Your task to perform on an android device: Open battery settings Image 0: 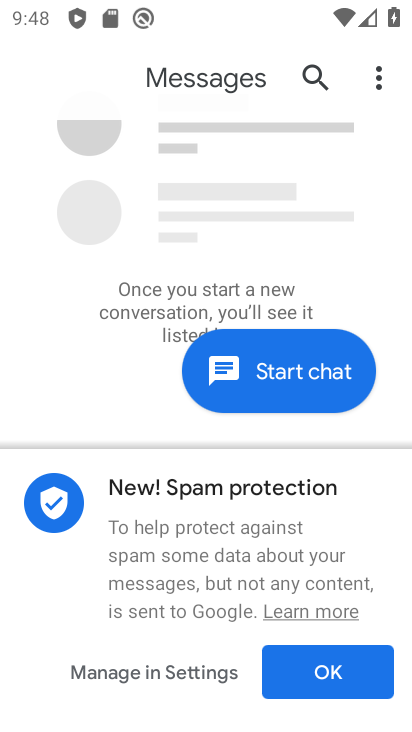
Step 0: press home button
Your task to perform on an android device: Open battery settings Image 1: 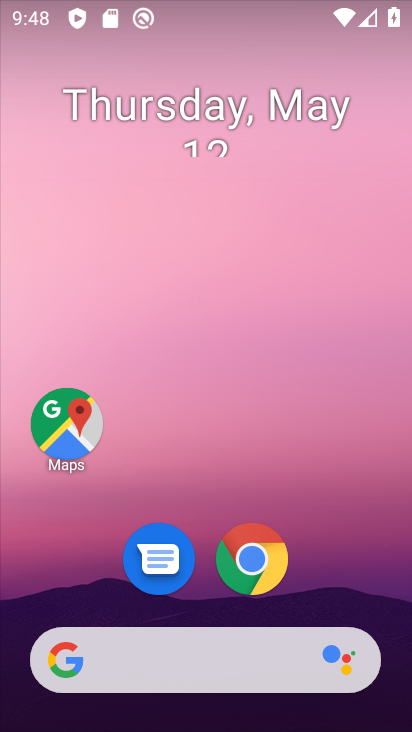
Step 1: drag from (193, 591) to (228, 9)
Your task to perform on an android device: Open battery settings Image 2: 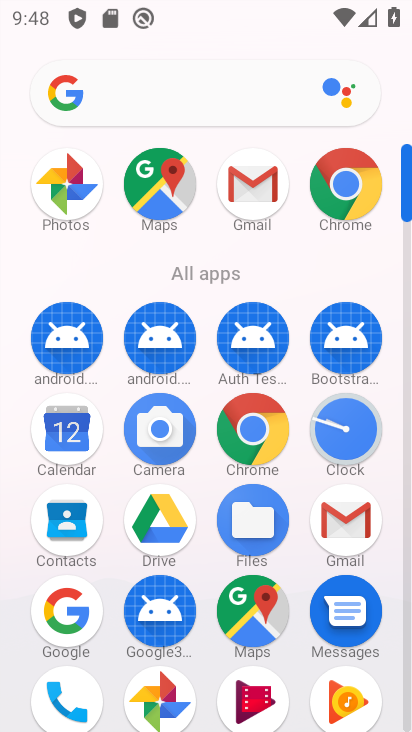
Step 2: drag from (238, 492) to (285, 134)
Your task to perform on an android device: Open battery settings Image 3: 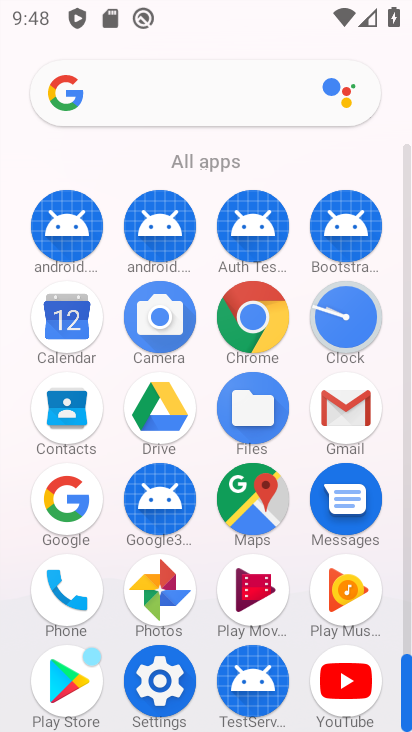
Step 3: click (163, 665)
Your task to perform on an android device: Open battery settings Image 4: 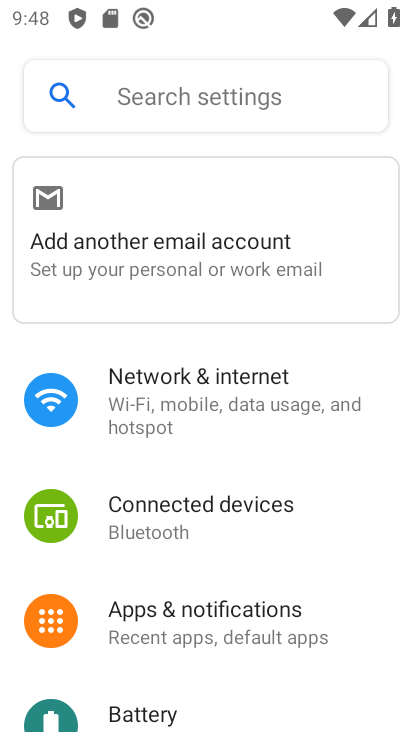
Step 4: drag from (181, 591) to (229, 267)
Your task to perform on an android device: Open battery settings Image 5: 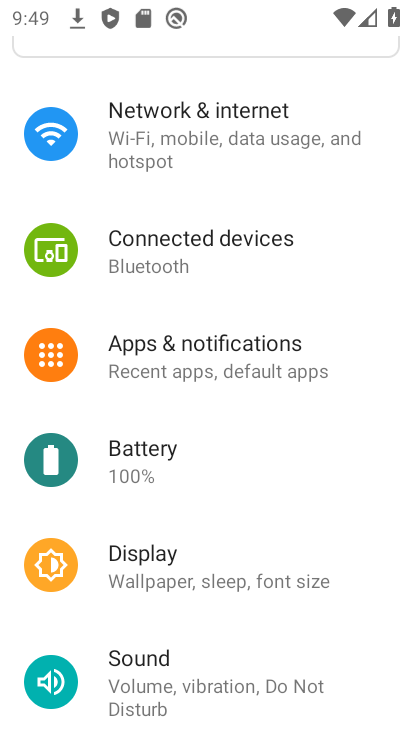
Step 5: click (151, 469)
Your task to perform on an android device: Open battery settings Image 6: 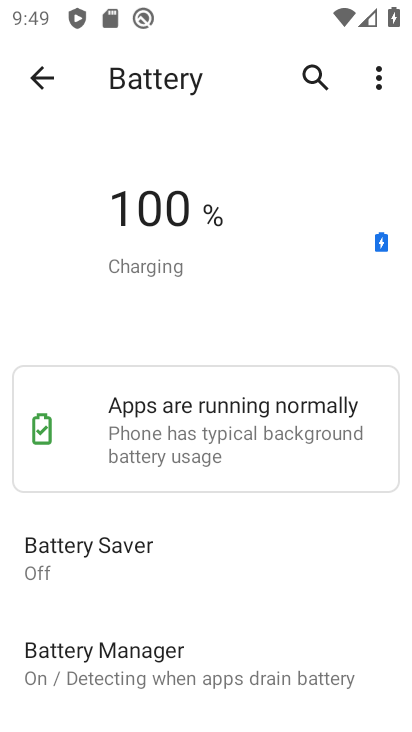
Step 6: task complete